Your task to perform on an android device: Search for "acer predator" on newegg, select the first entry, add it to the cart, then select checkout. Image 0: 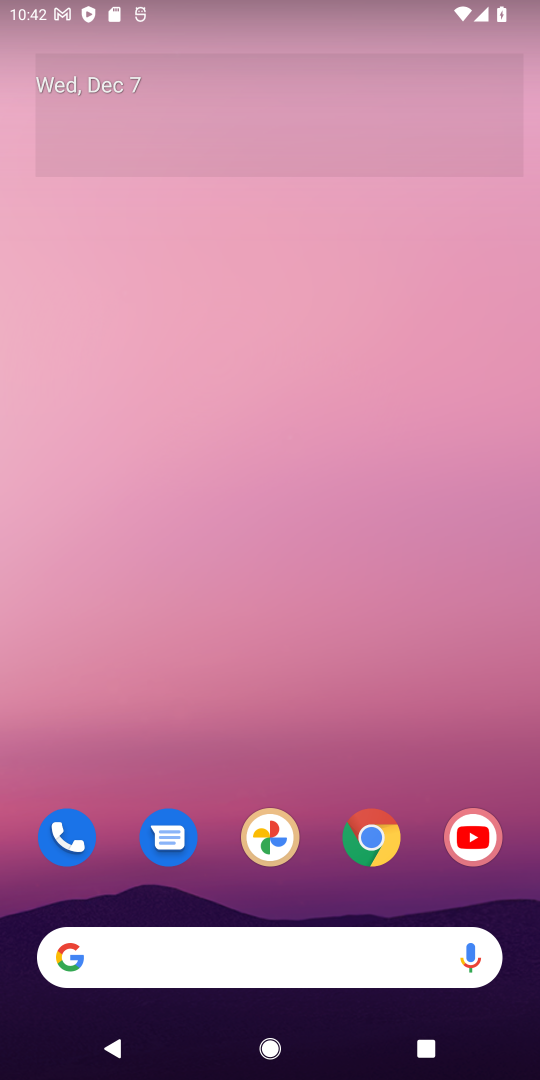
Step 0: click (367, 831)
Your task to perform on an android device: Search for "acer predator" on newegg, select the first entry, add it to the cart, then select checkout. Image 1: 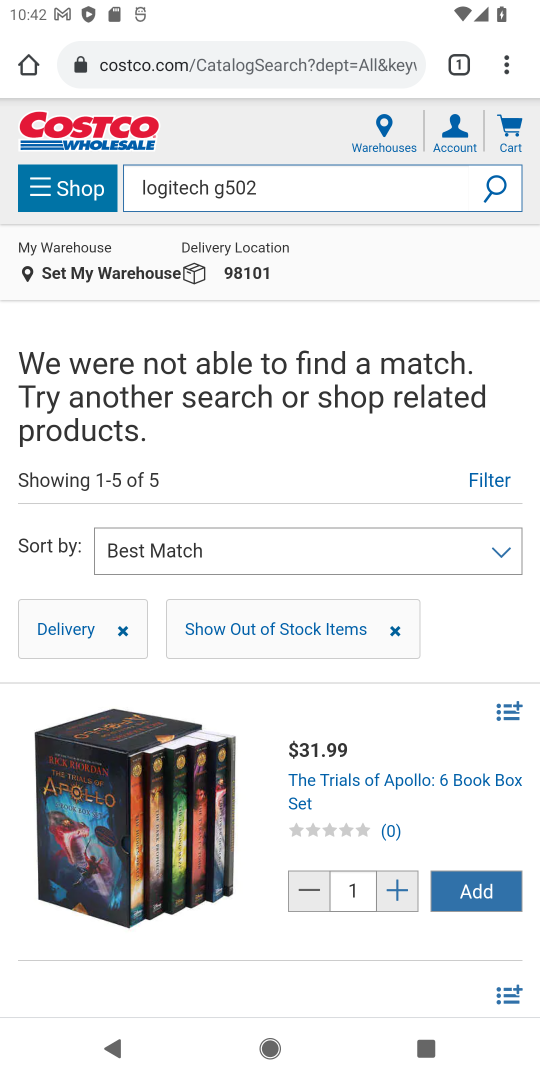
Step 1: click (226, 52)
Your task to perform on an android device: Search for "acer predator" on newegg, select the first entry, add it to the cart, then select checkout. Image 2: 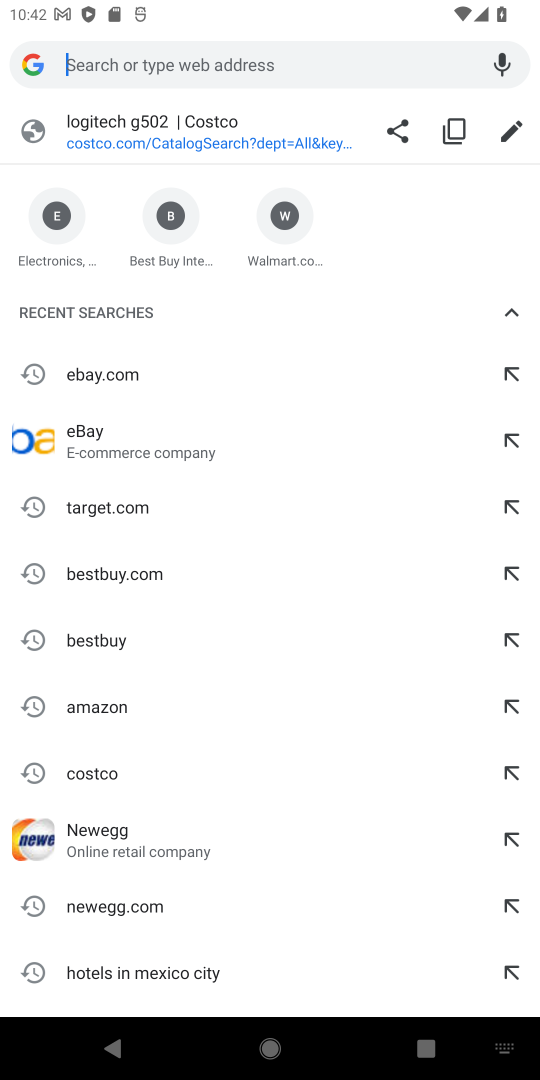
Step 2: press enter
Your task to perform on an android device: Search for "acer predator" on newegg, select the first entry, add it to the cart, then select checkout. Image 3: 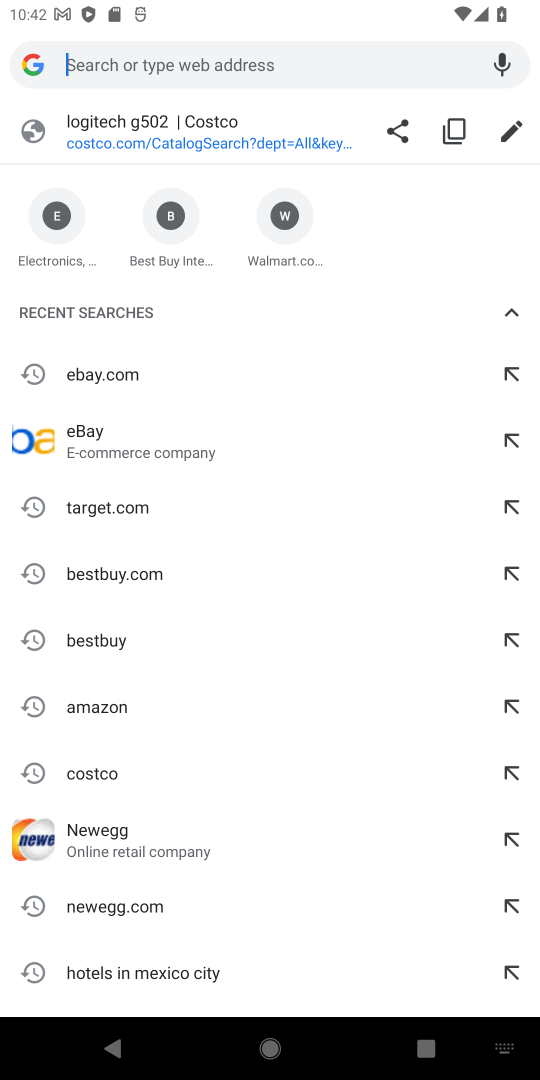
Step 3: type "newegg"
Your task to perform on an android device: Search for "acer predator" on newegg, select the first entry, add it to the cart, then select checkout. Image 4: 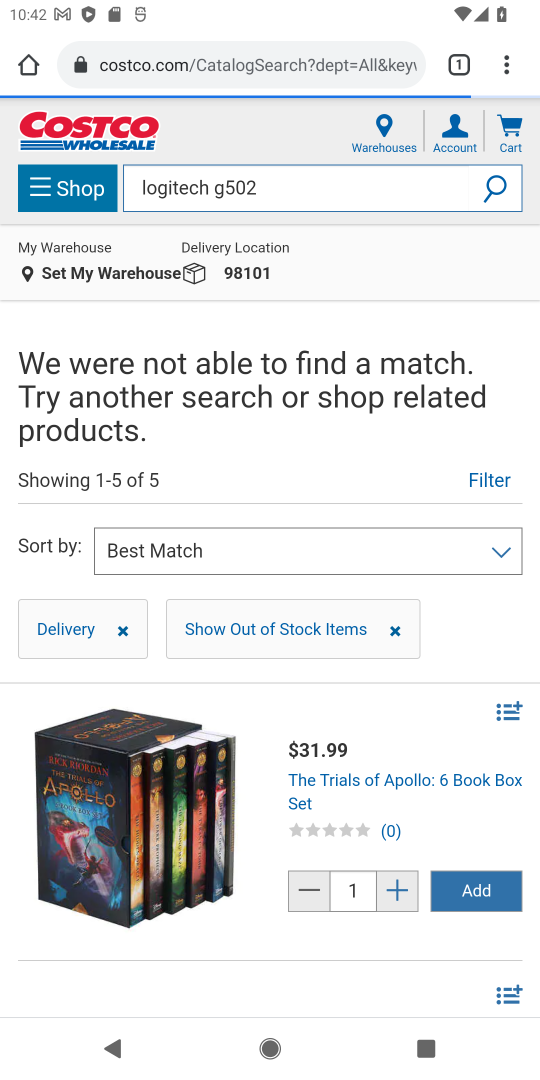
Step 4: click (274, 56)
Your task to perform on an android device: Search for "acer predator" on newegg, select the first entry, add it to the cart, then select checkout. Image 5: 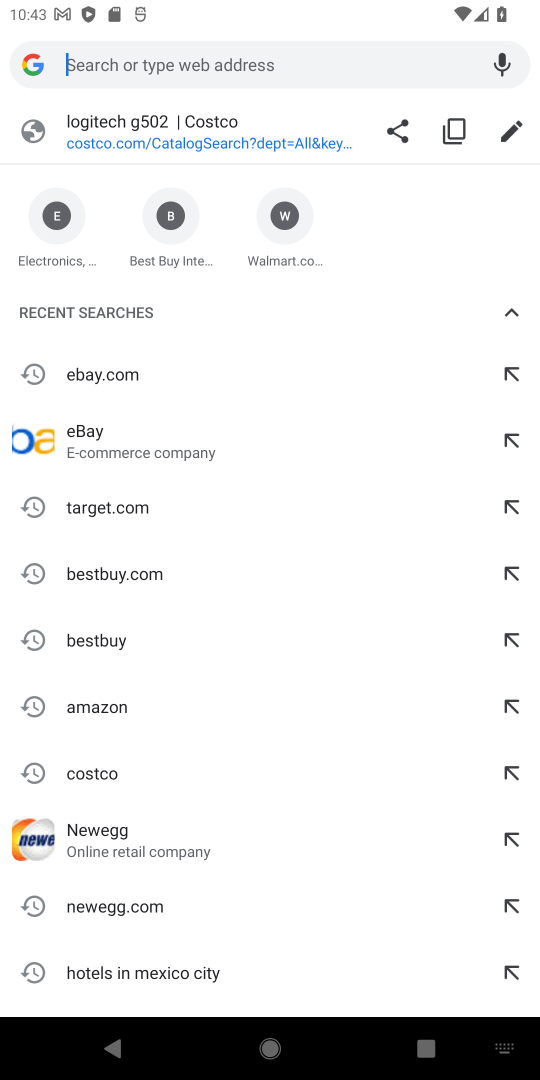
Step 5: type "newegg"
Your task to perform on an android device: Search for "acer predator" on newegg, select the first entry, add it to the cart, then select checkout. Image 6: 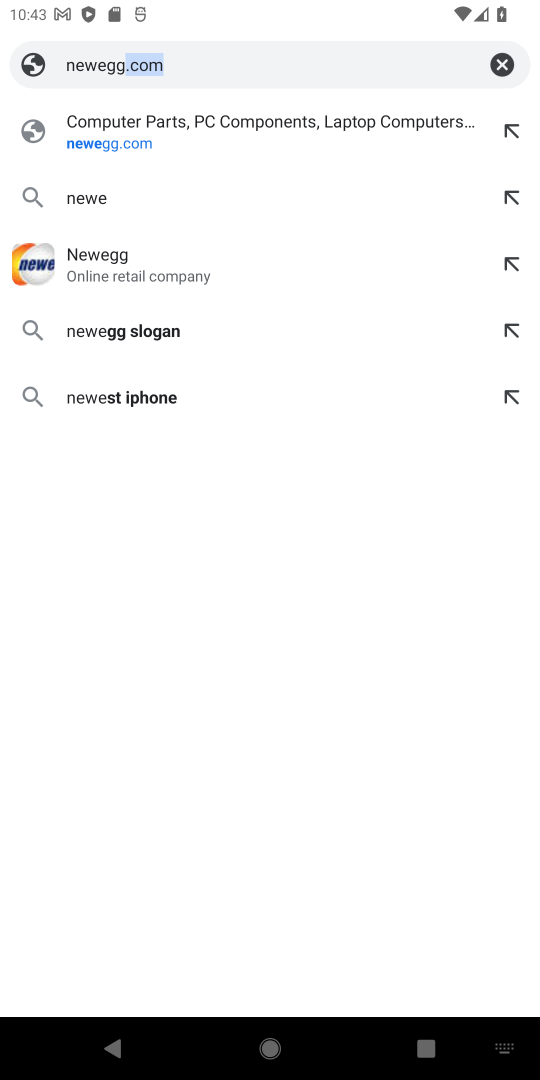
Step 6: press enter
Your task to perform on an android device: Search for "acer predator" on newegg, select the first entry, add it to the cart, then select checkout. Image 7: 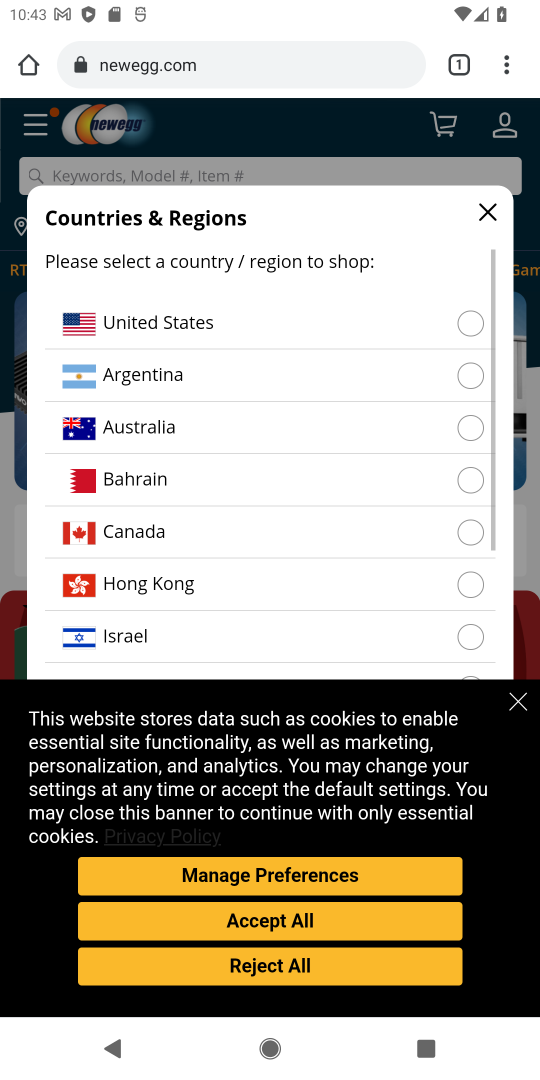
Step 7: click (521, 699)
Your task to perform on an android device: Search for "acer predator" on newegg, select the first entry, add it to the cart, then select checkout. Image 8: 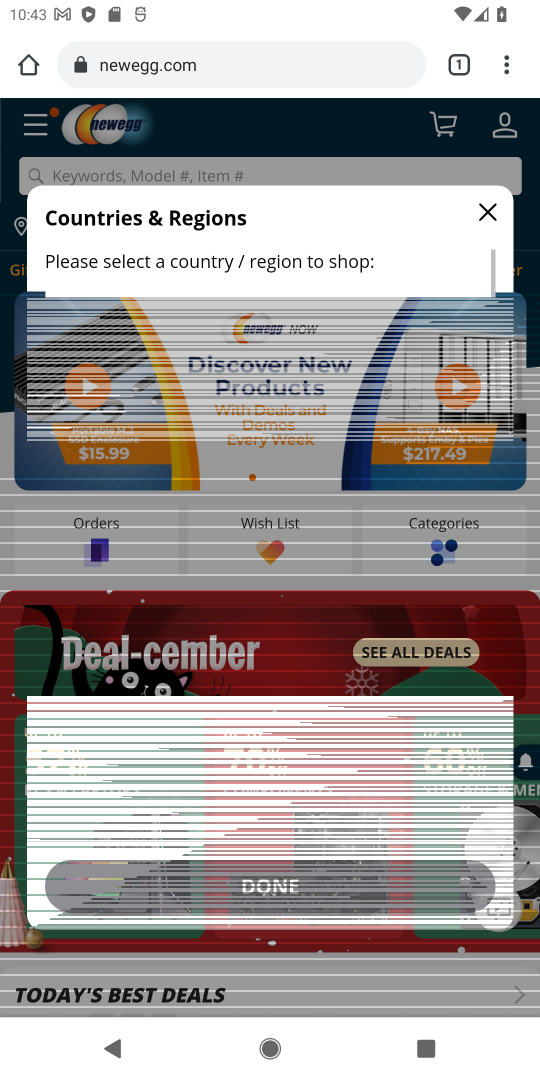
Step 8: click (474, 323)
Your task to perform on an android device: Search for "acer predator" on newegg, select the first entry, add it to the cart, then select checkout. Image 9: 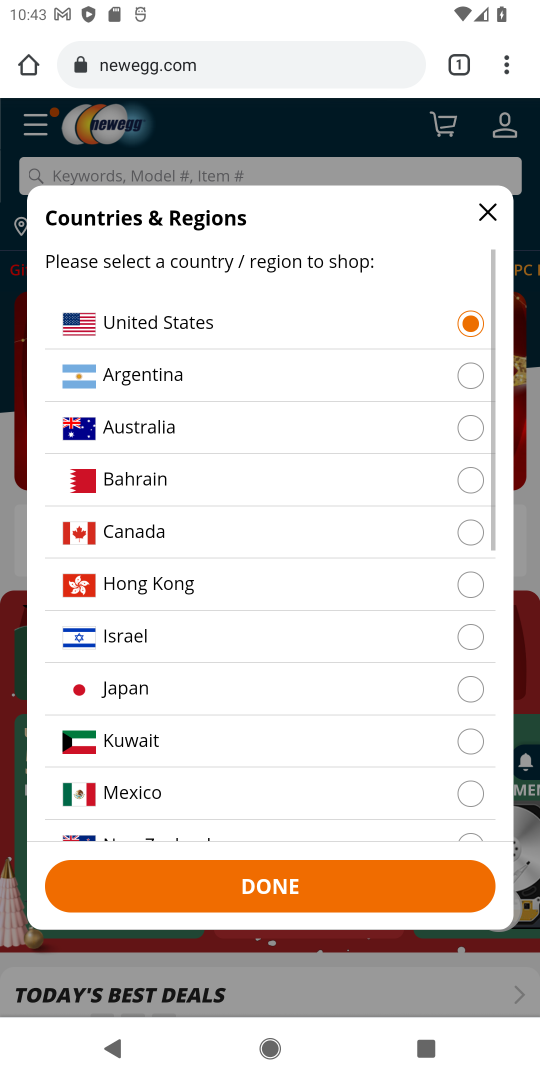
Step 9: click (372, 876)
Your task to perform on an android device: Search for "acer predator" on newegg, select the first entry, add it to the cart, then select checkout. Image 10: 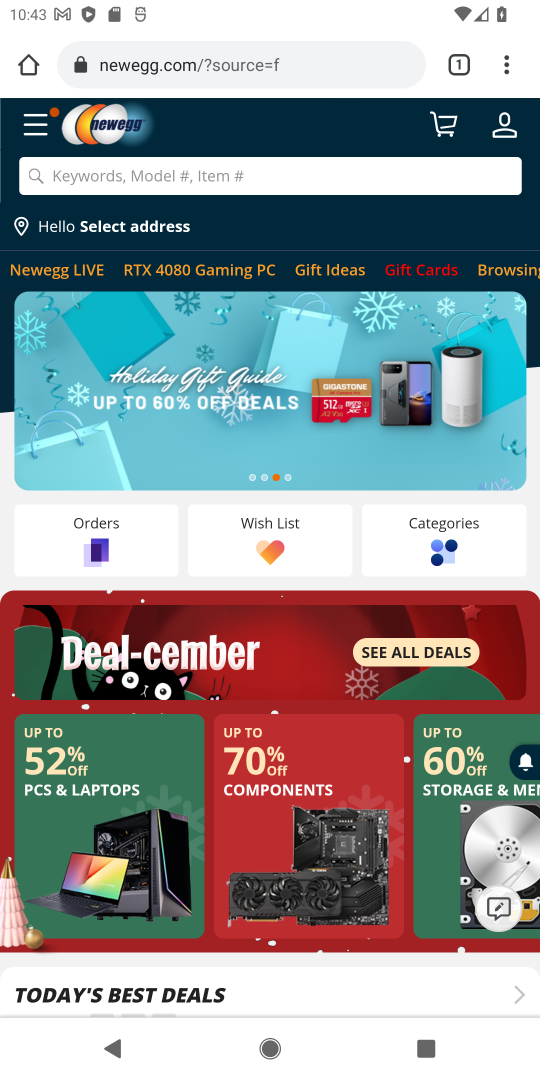
Step 10: click (402, 172)
Your task to perform on an android device: Search for "acer predator" on newegg, select the first entry, add it to the cart, then select checkout. Image 11: 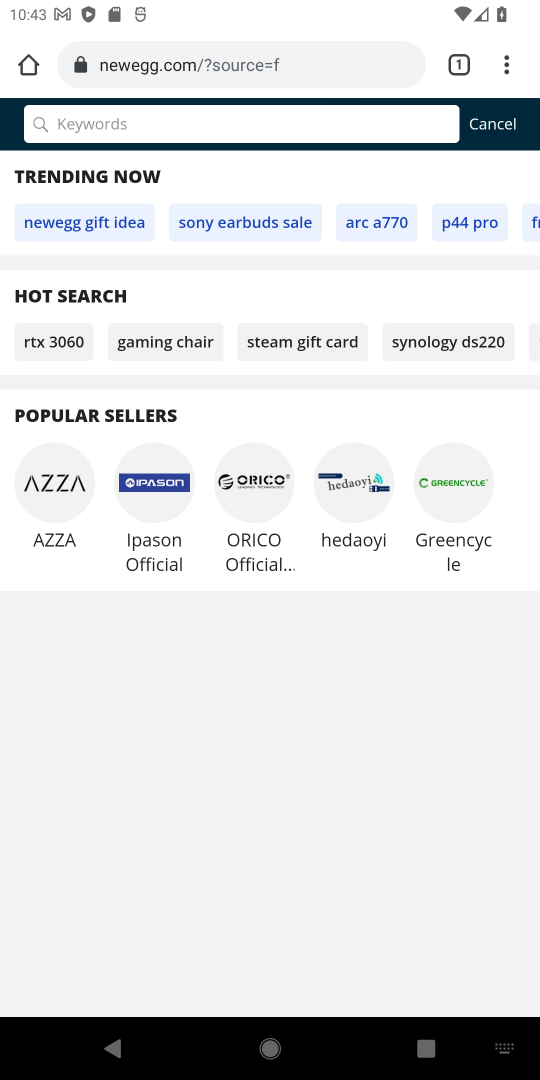
Step 11: type "acer predator"
Your task to perform on an android device: Search for "acer predator" on newegg, select the first entry, add it to the cart, then select checkout. Image 12: 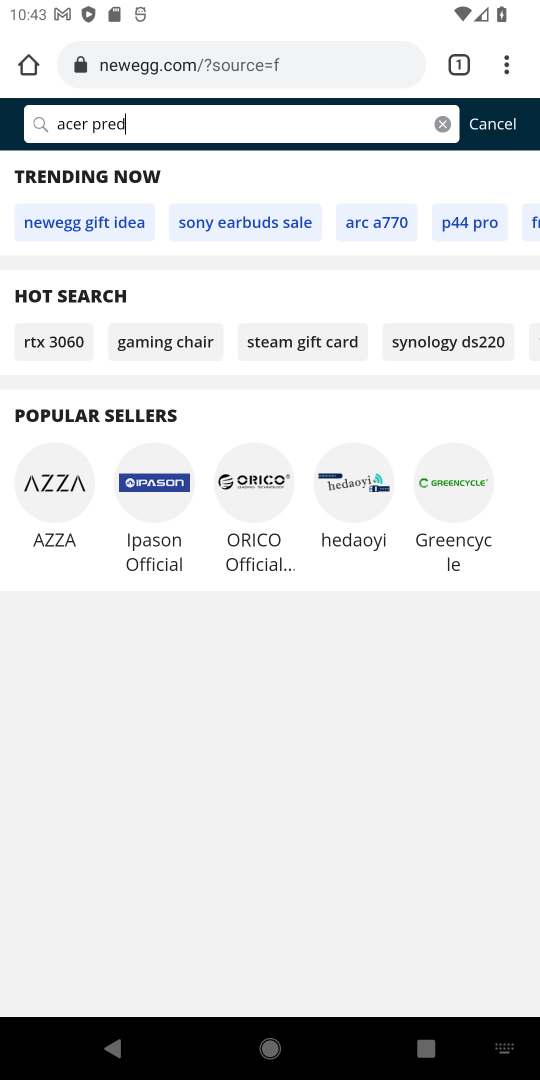
Step 12: press enter
Your task to perform on an android device: Search for "acer predator" on newegg, select the first entry, add it to the cart, then select checkout. Image 13: 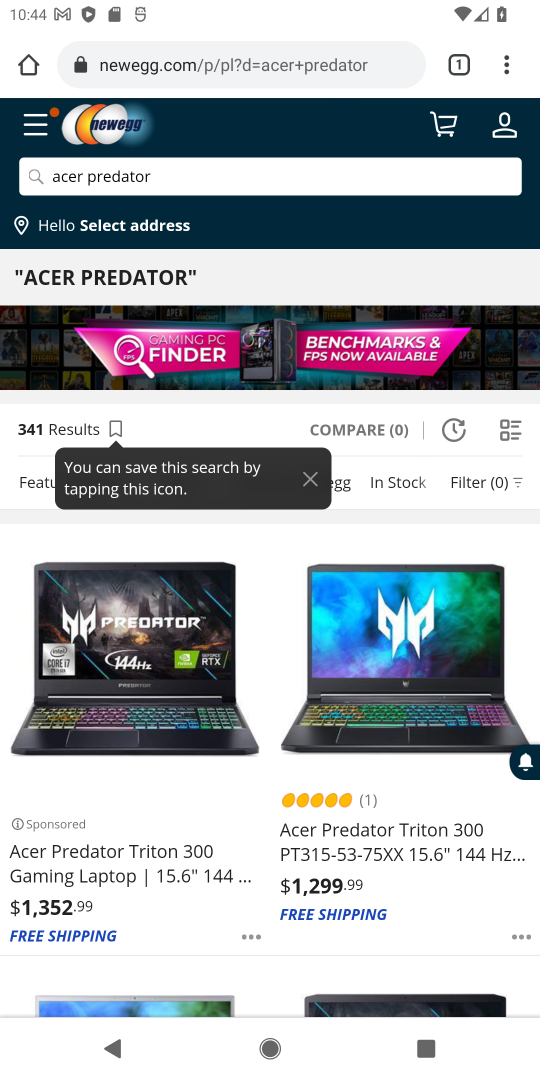
Step 13: click (154, 652)
Your task to perform on an android device: Search for "acer predator" on newegg, select the first entry, add it to the cart, then select checkout. Image 14: 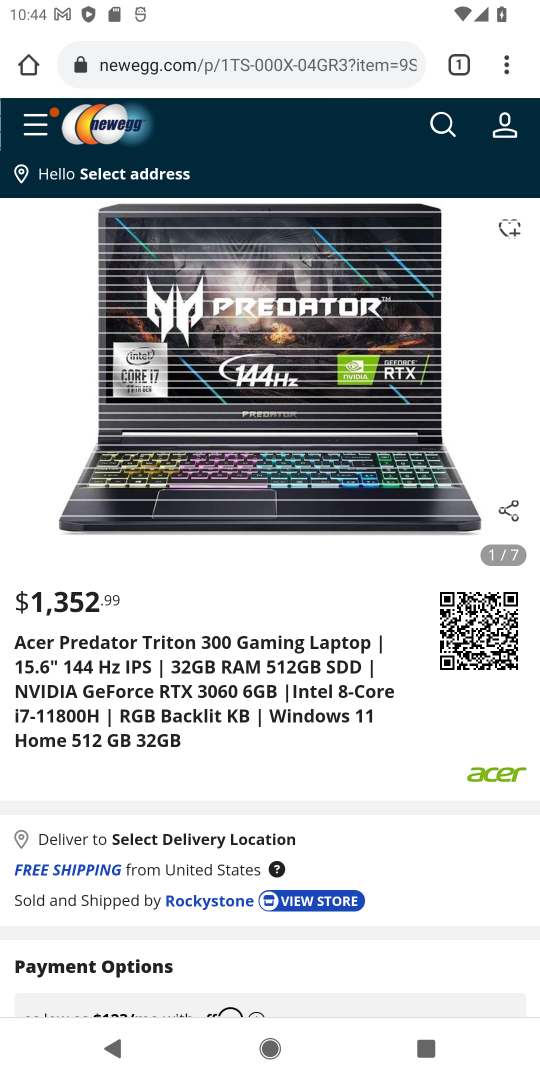
Step 14: drag from (389, 770) to (421, 367)
Your task to perform on an android device: Search for "acer predator" on newegg, select the first entry, add it to the cart, then select checkout. Image 15: 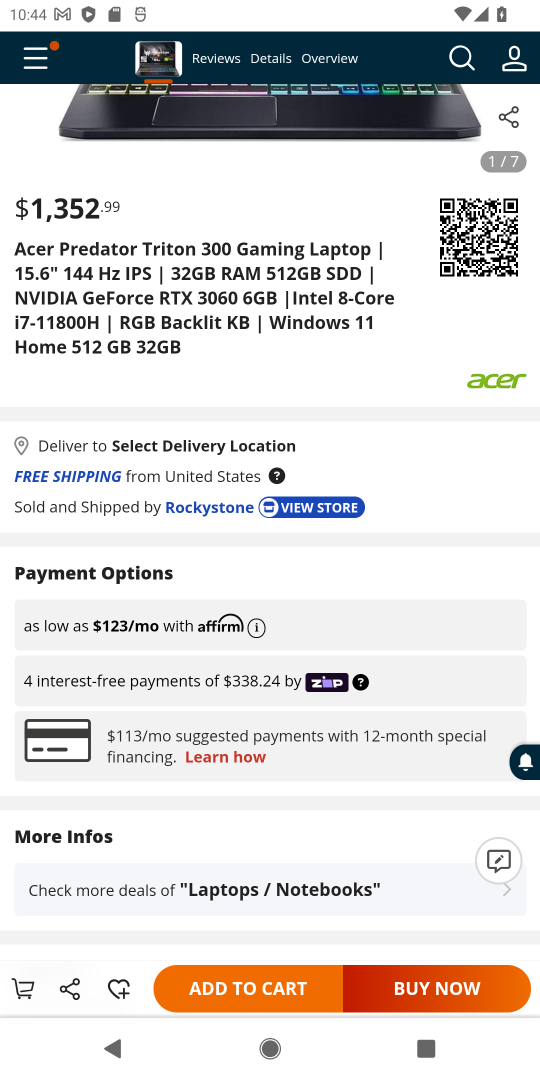
Step 15: click (249, 983)
Your task to perform on an android device: Search for "acer predator" on newegg, select the first entry, add it to the cart, then select checkout. Image 16: 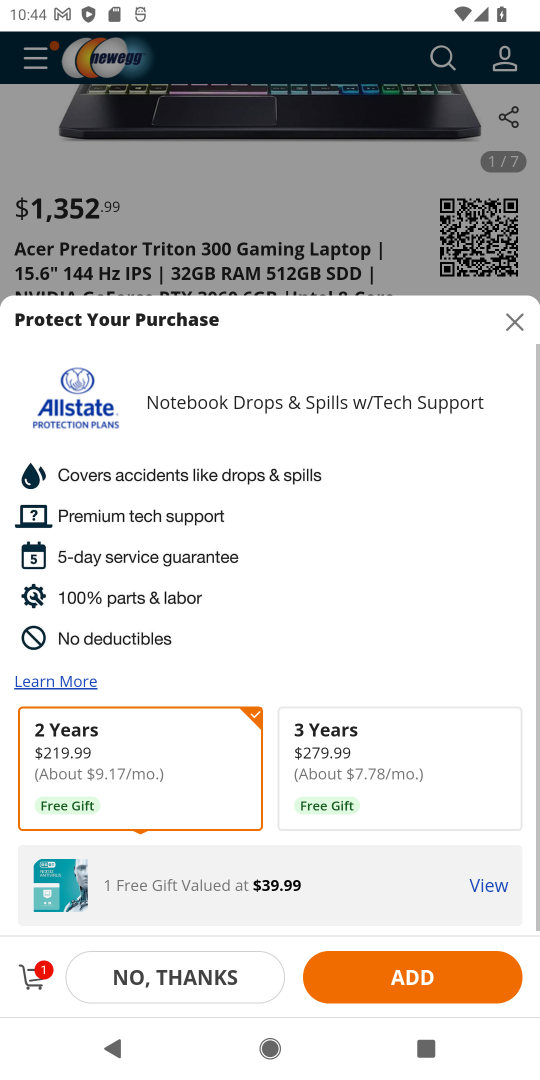
Step 16: click (25, 982)
Your task to perform on an android device: Search for "acer predator" on newegg, select the first entry, add it to the cart, then select checkout. Image 17: 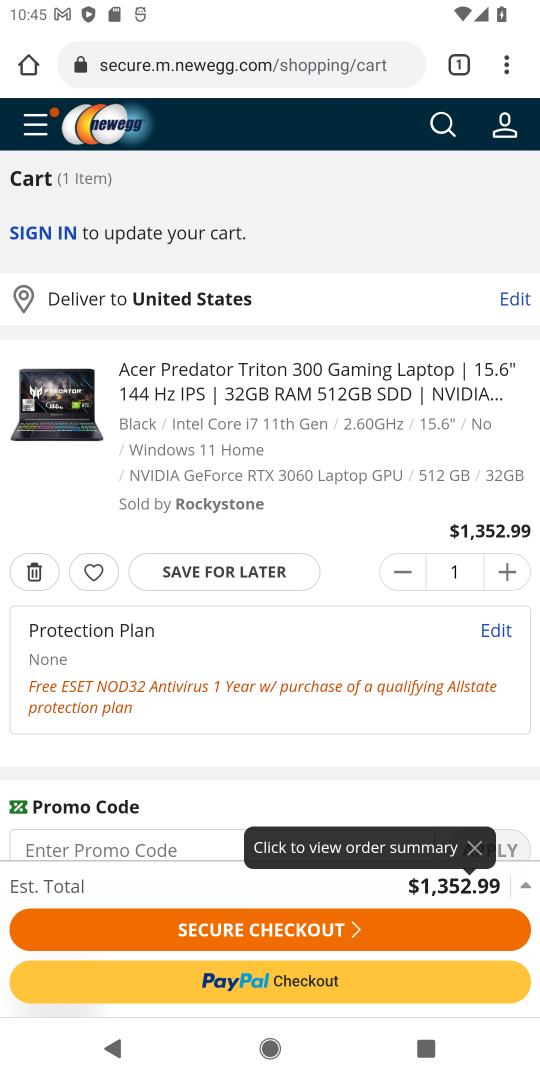
Step 17: drag from (391, 836) to (393, 329)
Your task to perform on an android device: Search for "acer predator" on newegg, select the first entry, add it to the cart, then select checkout. Image 18: 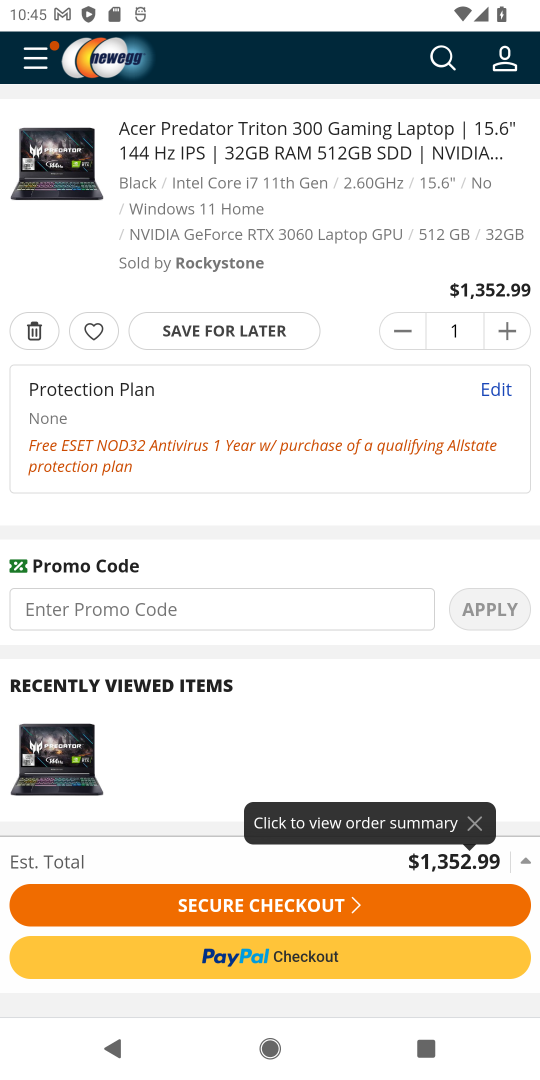
Step 18: click (289, 897)
Your task to perform on an android device: Search for "acer predator" on newegg, select the first entry, add it to the cart, then select checkout. Image 19: 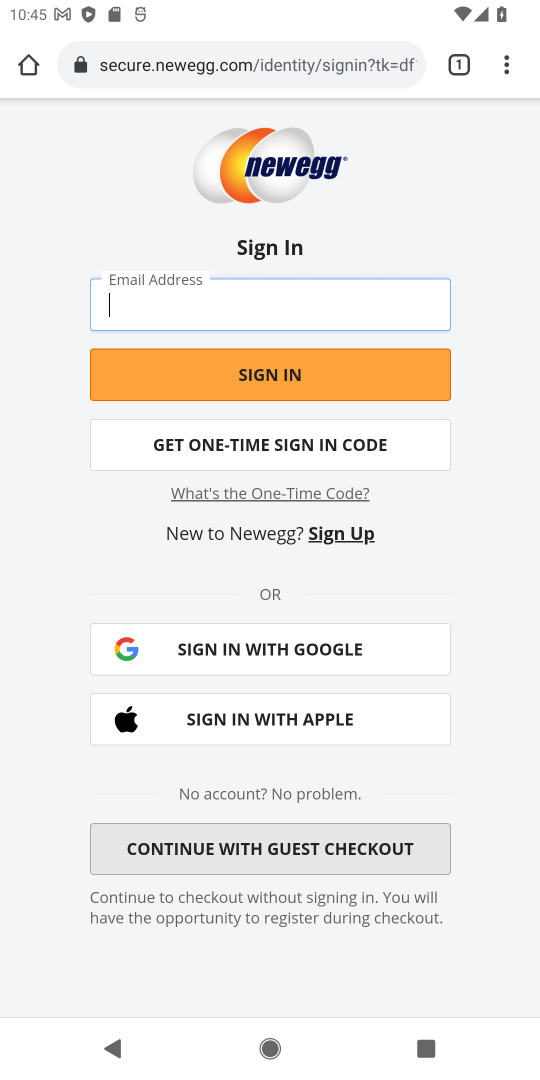
Step 19: task complete